Your task to perform on an android device: add a label to a message in the gmail app Image 0: 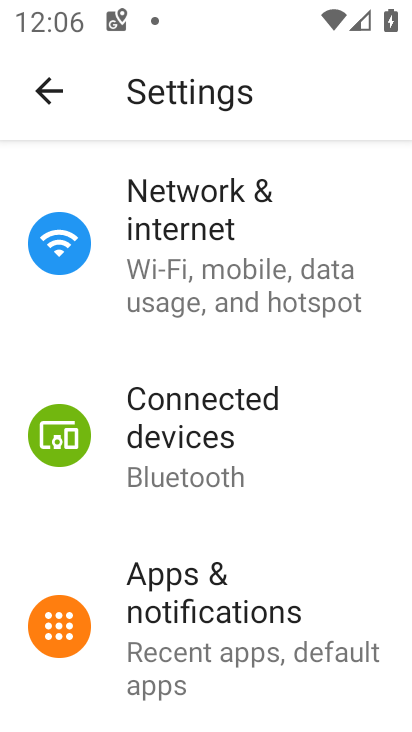
Step 0: press home button
Your task to perform on an android device: add a label to a message in the gmail app Image 1: 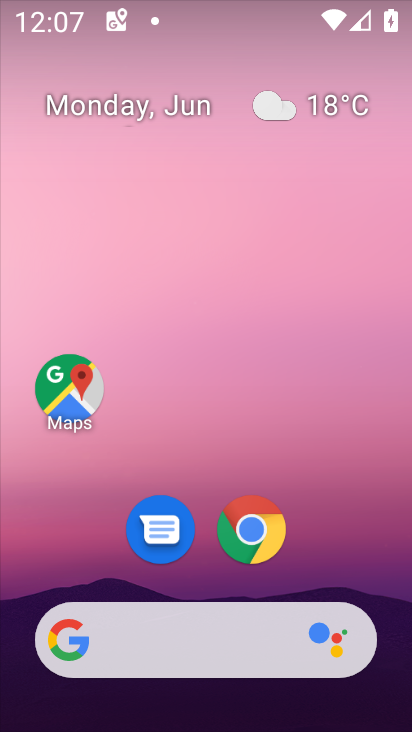
Step 1: drag from (334, 533) to (311, 13)
Your task to perform on an android device: add a label to a message in the gmail app Image 2: 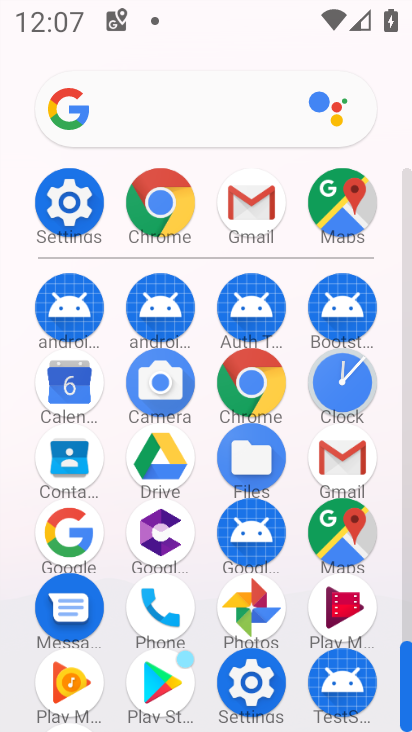
Step 2: click (236, 220)
Your task to perform on an android device: add a label to a message in the gmail app Image 3: 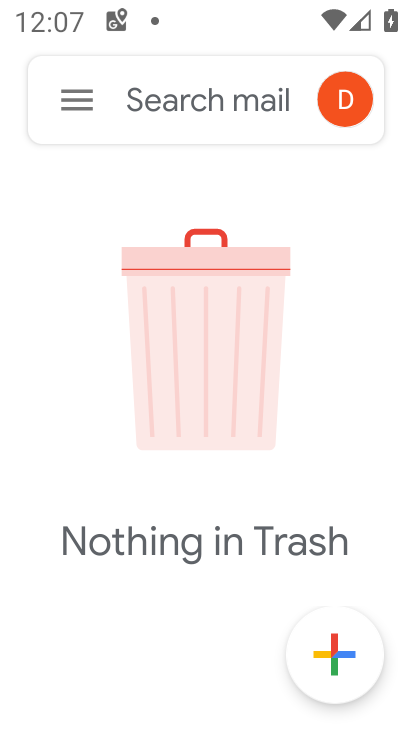
Step 3: click (65, 115)
Your task to perform on an android device: add a label to a message in the gmail app Image 4: 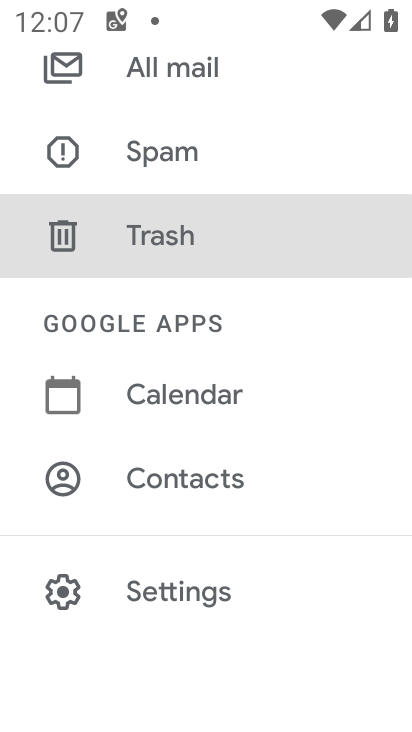
Step 4: drag from (130, 226) to (155, 643)
Your task to perform on an android device: add a label to a message in the gmail app Image 5: 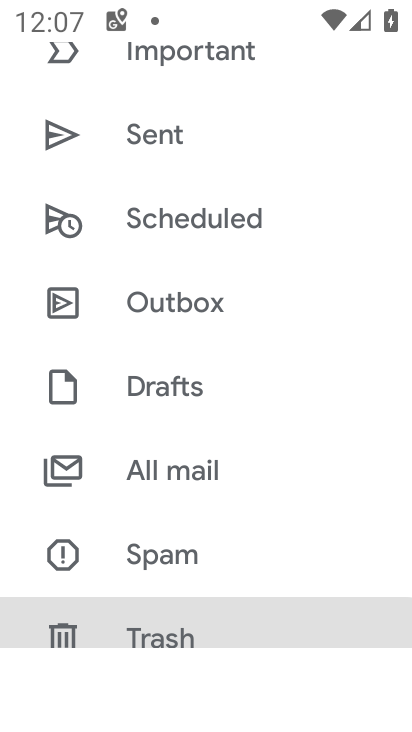
Step 5: click (159, 478)
Your task to perform on an android device: add a label to a message in the gmail app Image 6: 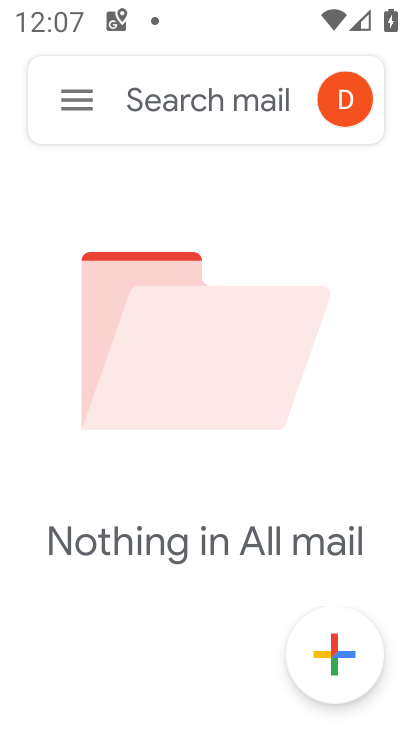
Step 6: task complete